Your task to perform on an android device: toggle pop-ups in chrome Image 0: 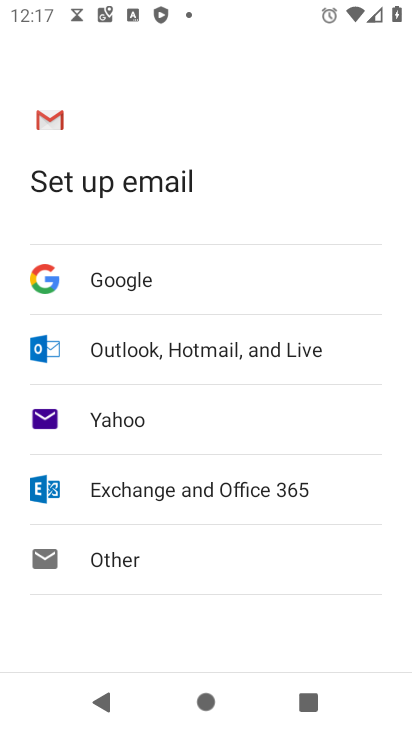
Step 0: press home button
Your task to perform on an android device: toggle pop-ups in chrome Image 1: 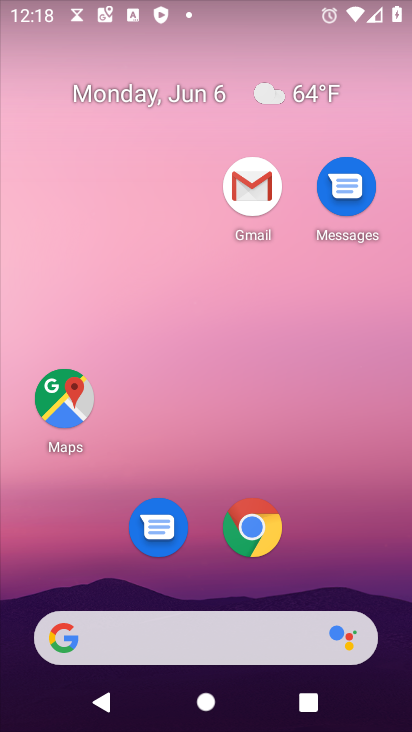
Step 1: click (261, 530)
Your task to perform on an android device: toggle pop-ups in chrome Image 2: 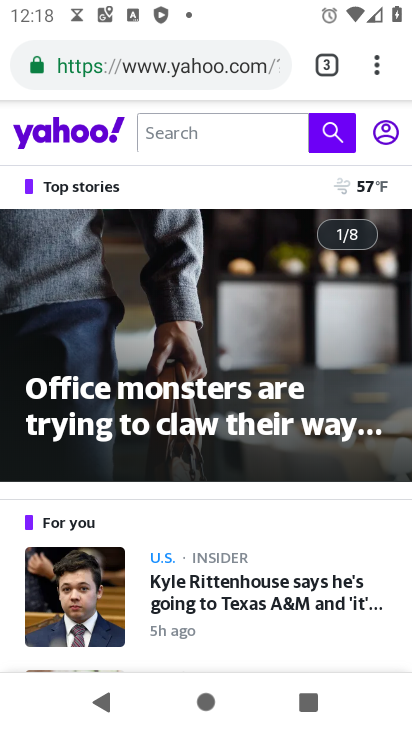
Step 2: click (379, 66)
Your task to perform on an android device: toggle pop-ups in chrome Image 3: 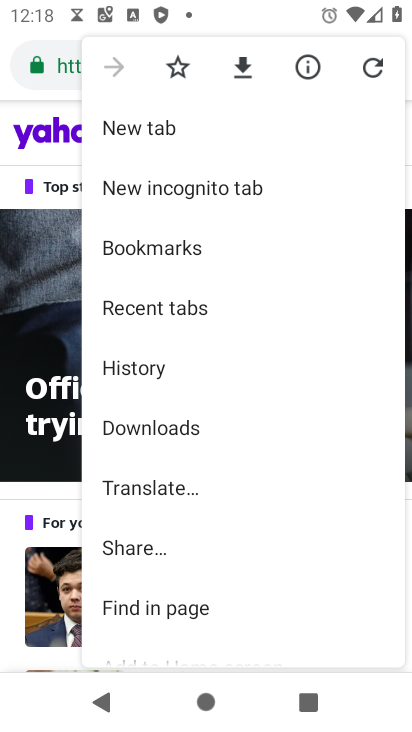
Step 3: drag from (204, 567) to (218, 214)
Your task to perform on an android device: toggle pop-ups in chrome Image 4: 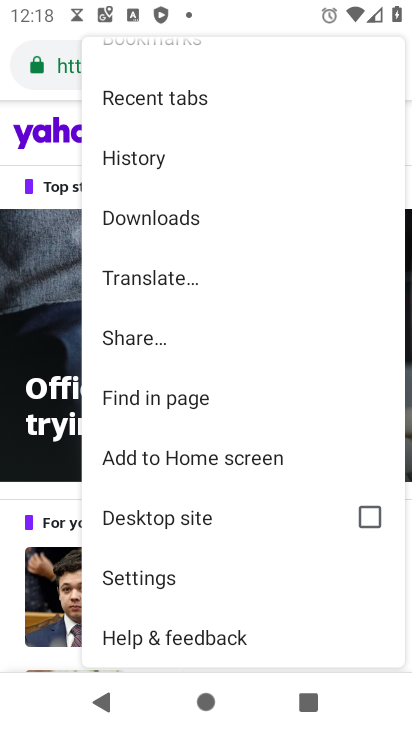
Step 4: click (165, 579)
Your task to perform on an android device: toggle pop-ups in chrome Image 5: 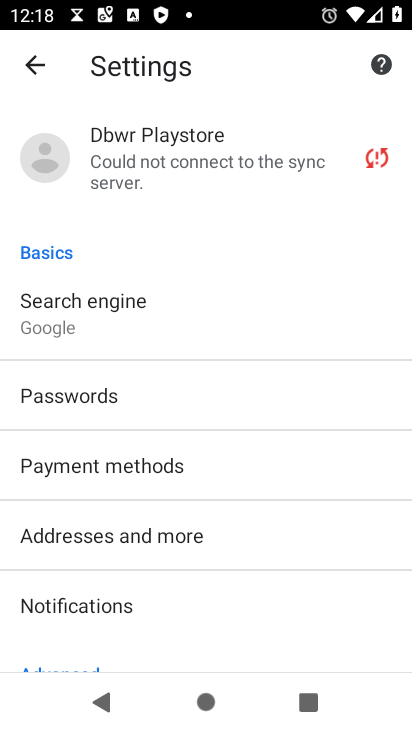
Step 5: drag from (234, 613) to (233, 320)
Your task to perform on an android device: toggle pop-ups in chrome Image 6: 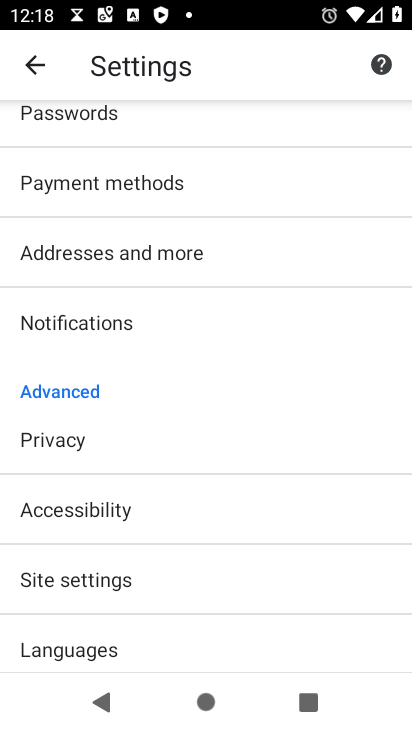
Step 6: click (107, 588)
Your task to perform on an android device: toggle pop-ups in chrome Image 7: 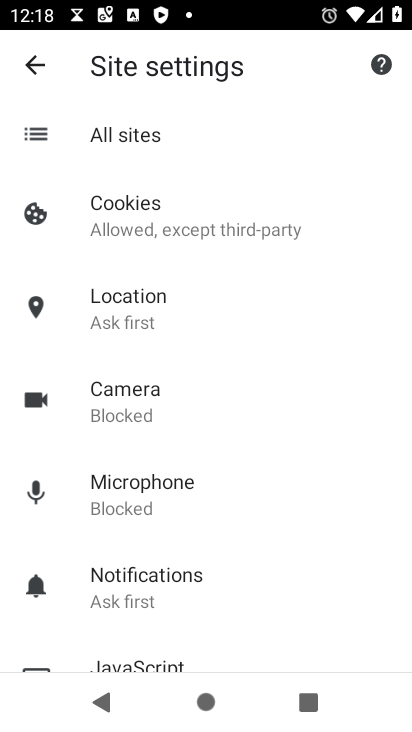
Step 7: drag from (252, 566) to (259, 102)
Your task to perform on an android device: toggle pop-ups in chrome Image 8: 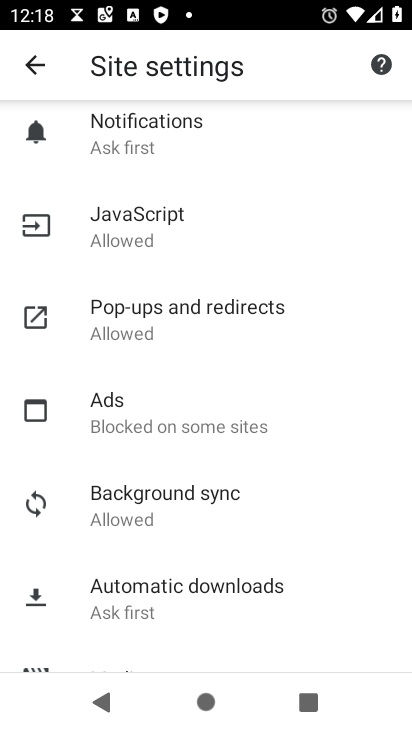
Step 8: click (256, 308)
Your task to perform on an android device: toggle pop-ups in chrome Image 9: 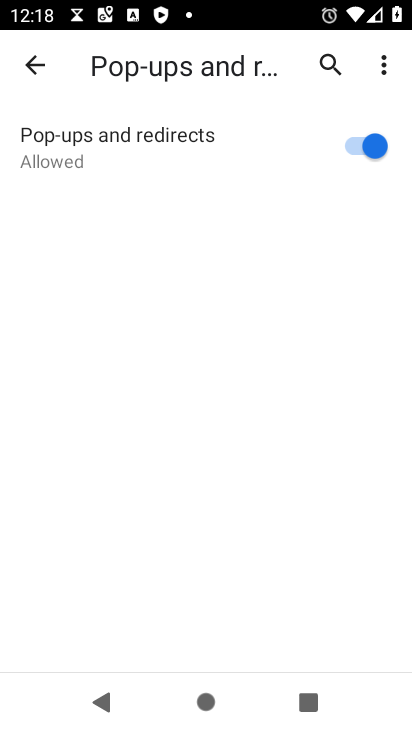
Step 9: click (346, 152)
Your task to perform on an android device: toggle pop-ups in chrome Image 10: 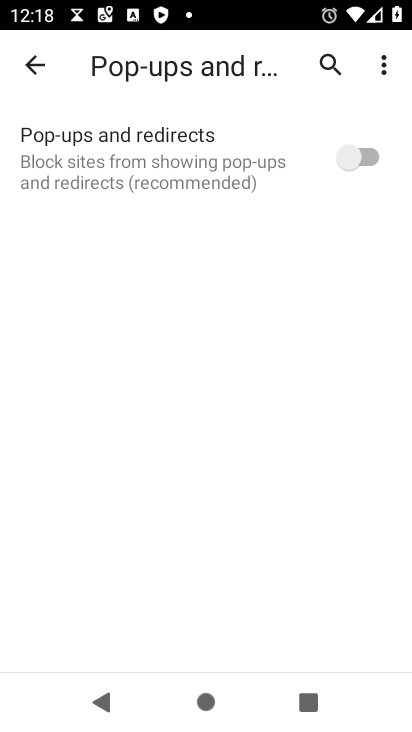
Step 10: task complete